Your task to perform on an android device: search for starred emails in the gmail app Image 0: 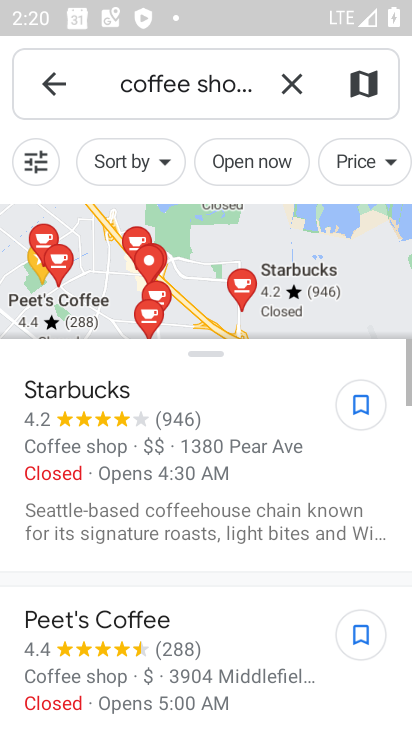
Step 0: drag from (362, 571) to (223, 124)
Your task to perform on an android device: search for starred emails in the gmail app Image 1: 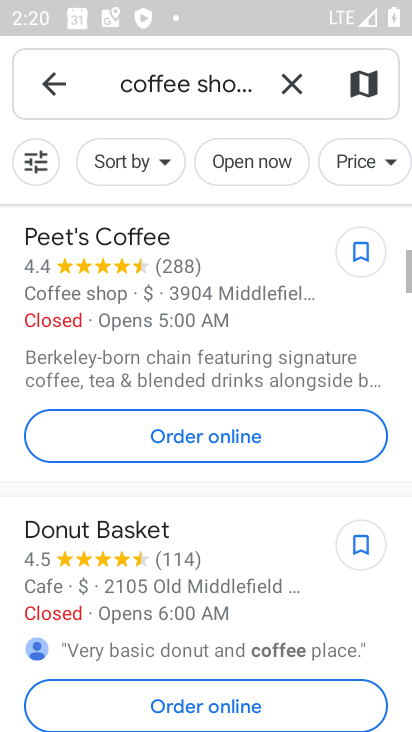
Step 1: press home button
Your task to perform on an android device: search for starred emails in the gmail app Image 2: 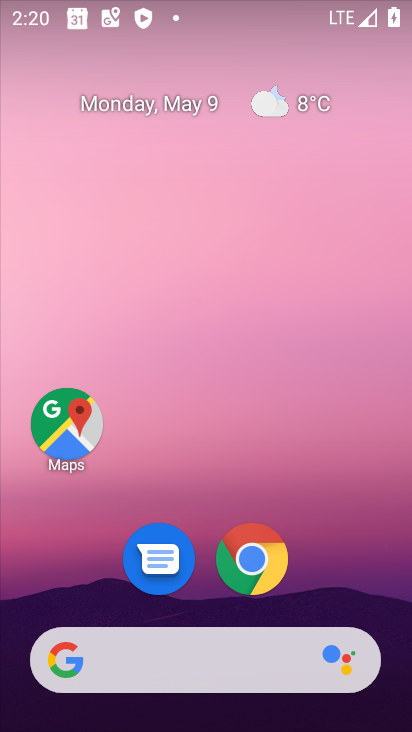
Step 2: drag from (312, 516) to (150, 20)
Your task to perform on an android device: search for starred emails in the gmail app Image 3: 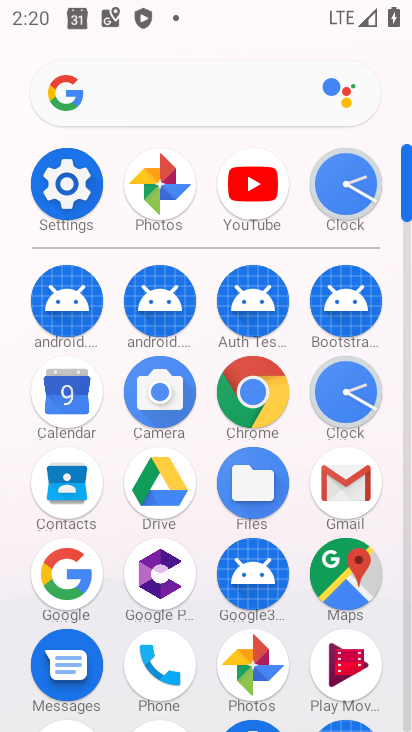
Step 3: click (339, 488)
Your task to perform on an android device: search for starred emails in the gmail app Image 4: 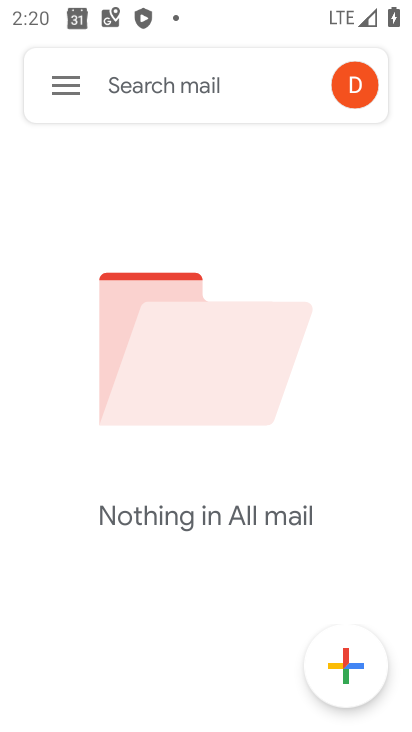
Step 4: click (58, 83)
Your task to perform on an android device: search for starred emails in the gmail app Image 5: 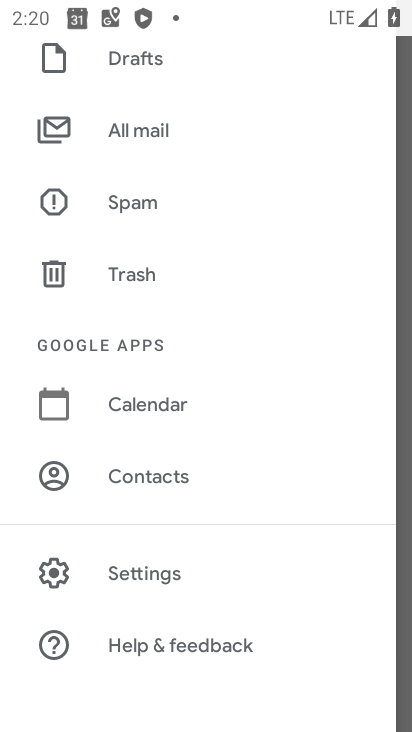
Step 5: drag from (196, 223) to (206, 697)
Your task to perform on an android device: search for starred emails in the gmail app Image 6: 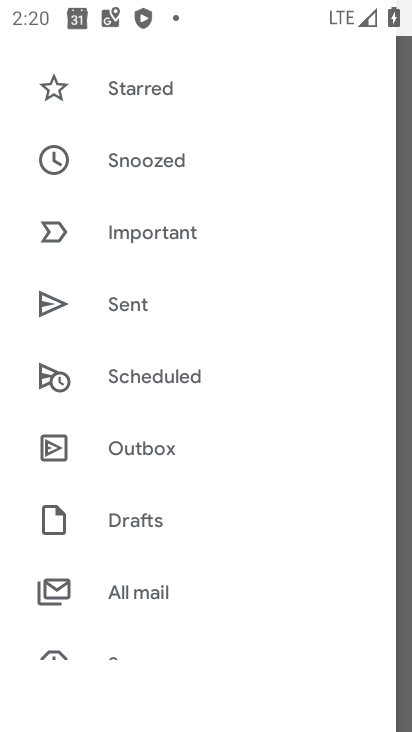
Step 6: click (142, 86)
Your task to perform on an android device: search for starred emails in the gmail app Image 7: 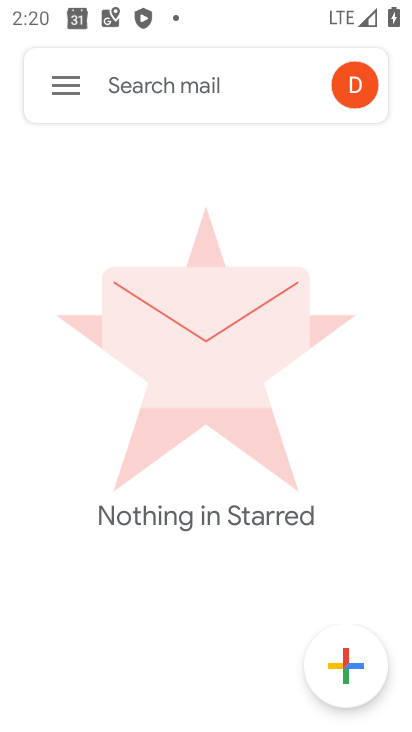
Step 7: task complete